Your task to perform on an android device: What is the news today? Image 0: 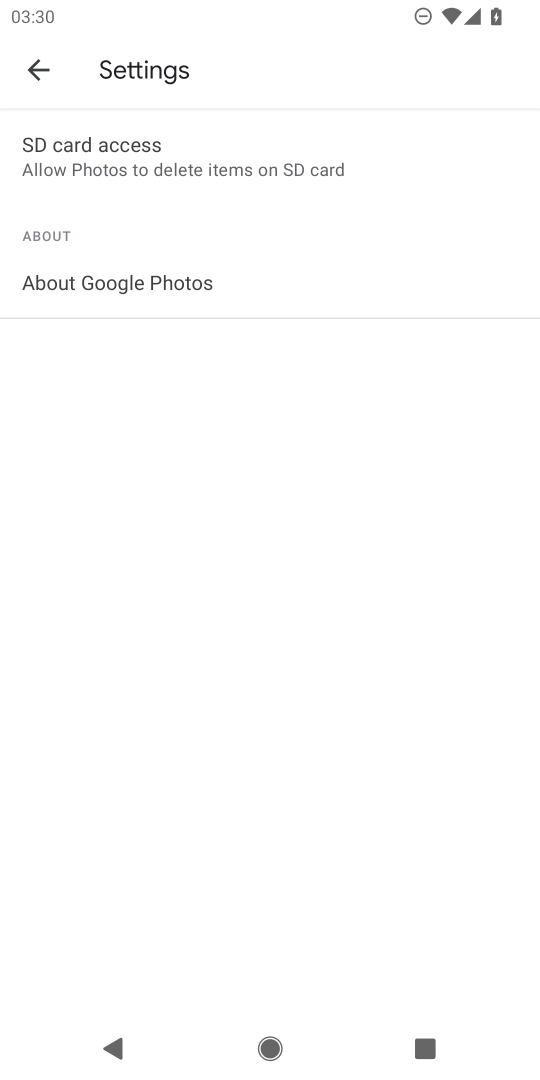
Step 0: press home button
Your task to perform on an android device: What is the news today? Image 1: 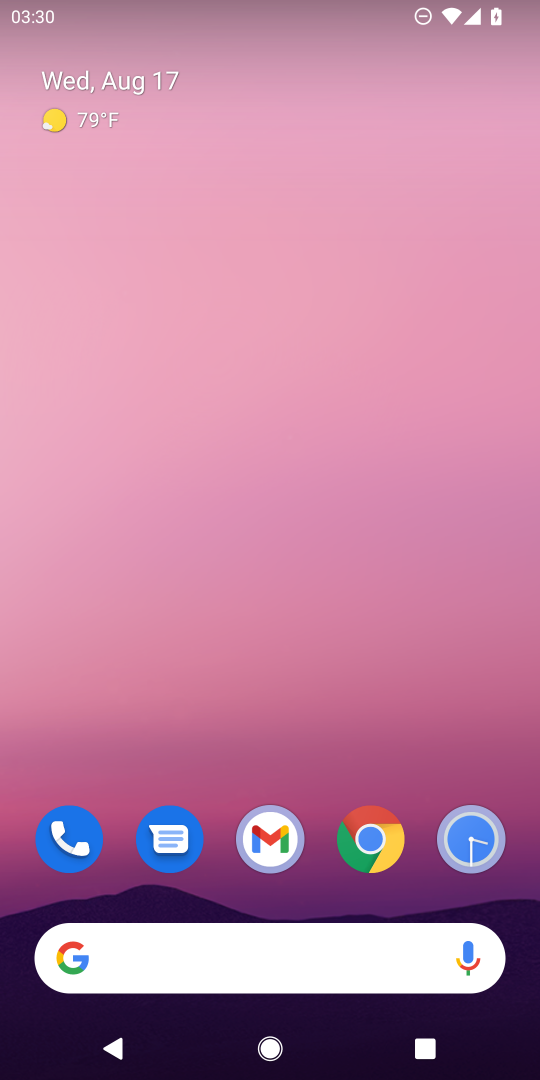
Step 1: task complete